Your task to perform on an android device: uninstall "Etsy: Buy & Sell Unique Items" Image 0: 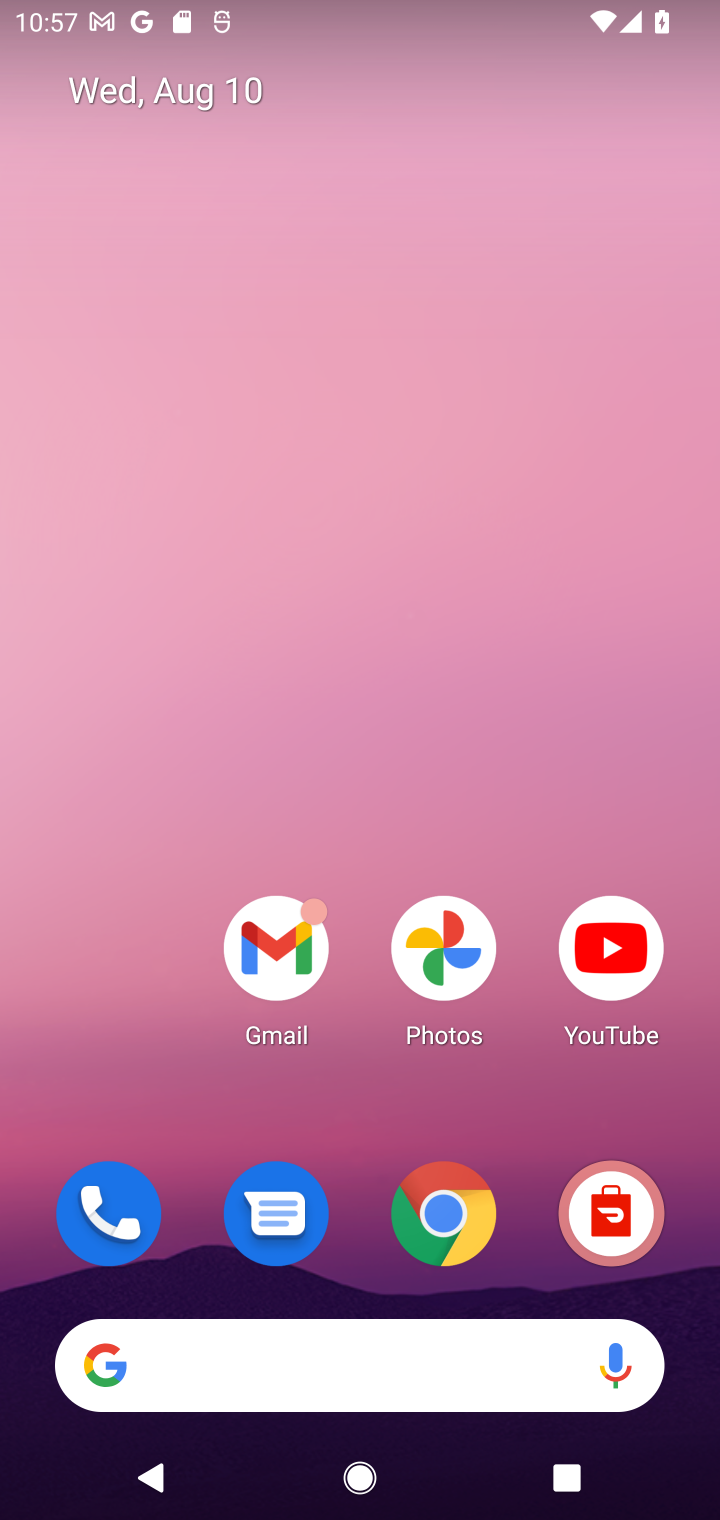
Step 0: drag from (215, 1389) to (418, 90)
Your task to perform on an android device: uninstall "Etsy: Buy & Sell Unique Items" Image 1: 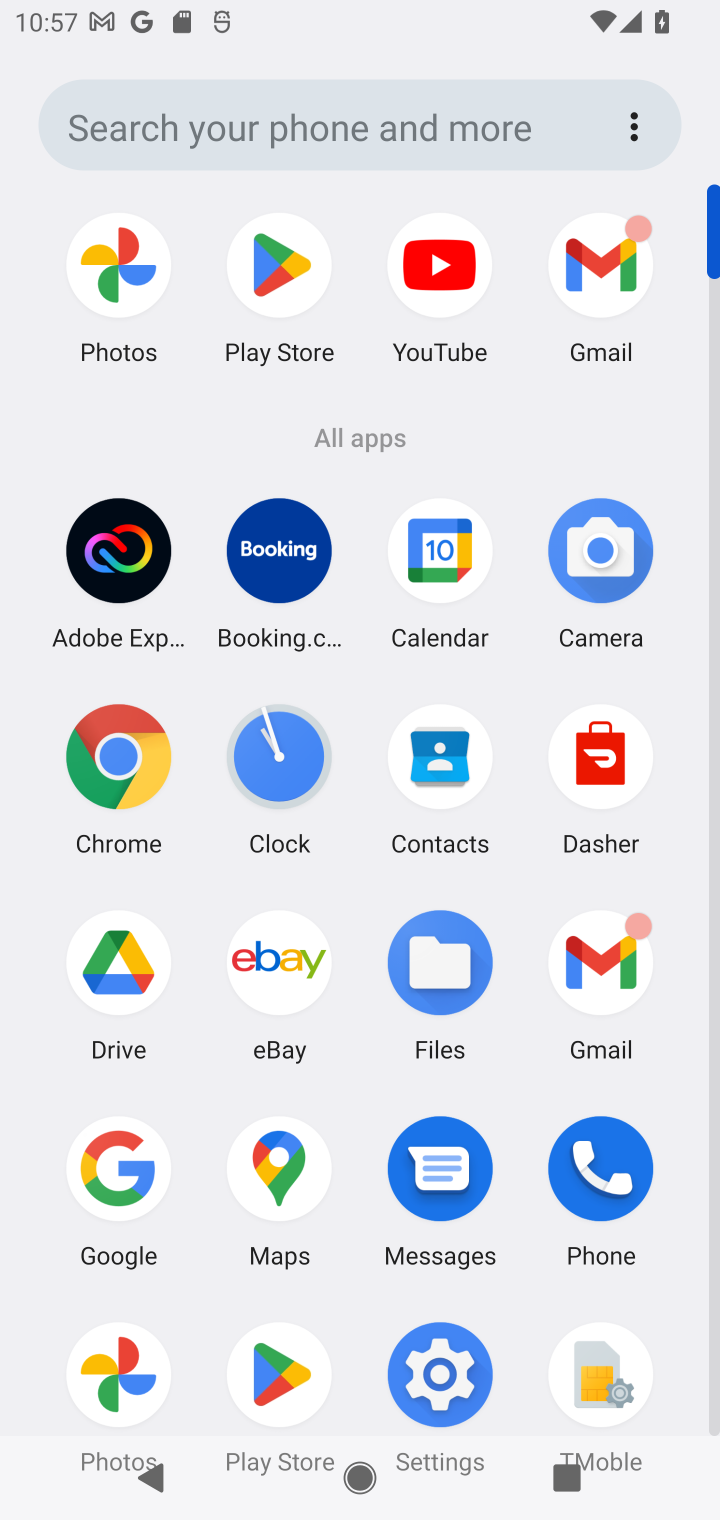
Step 1: click (275, 275)
Your task to perform on an android device: uninstall "Etsy: Buy & Sell Unique Items" Image 2: 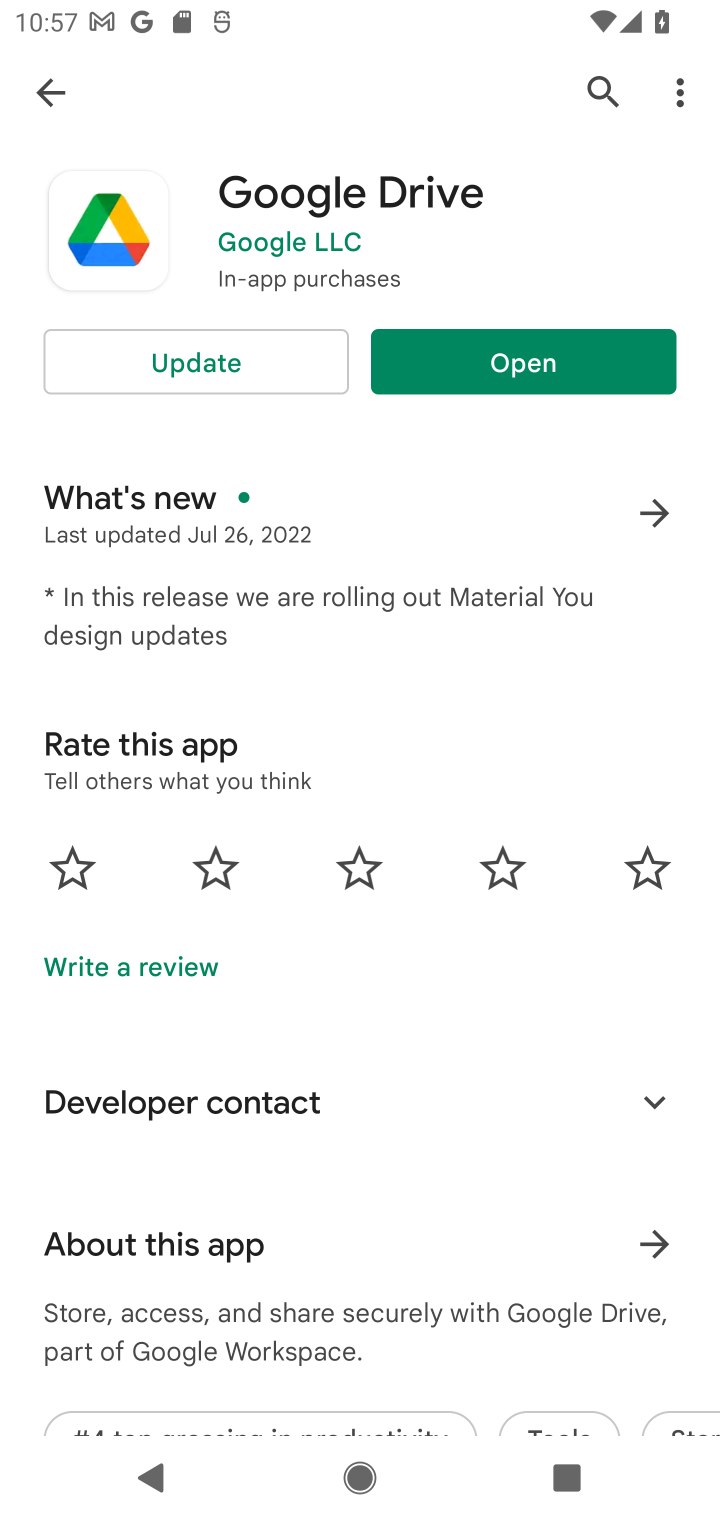
Step 2: press back button
Your task to perform on an android device: uninstall "Etsy: Buy & Sell Unique Items" Image 3: 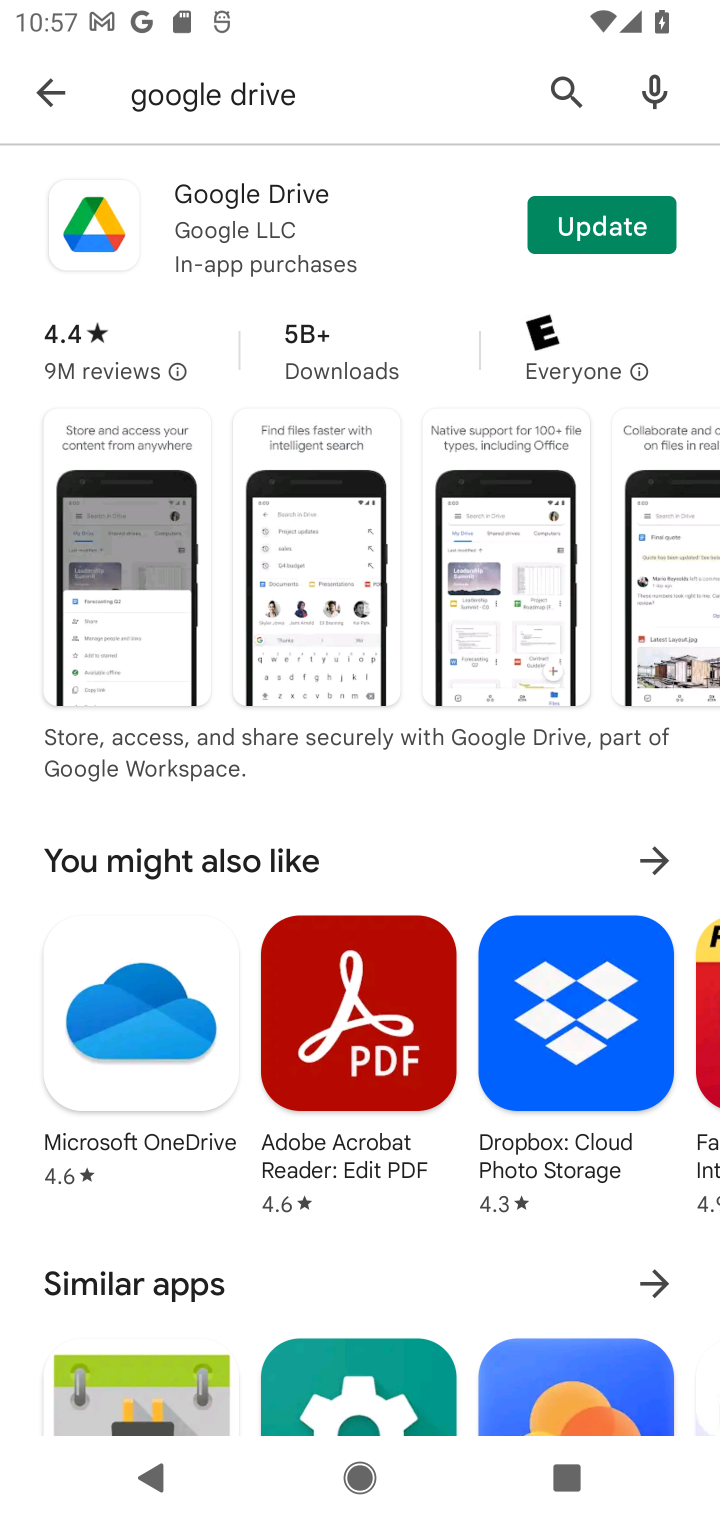
Step 3: press back button
Your task to perform on an android device: uninstall "Etsy: Buy & Sell Unique Items" Image 4: 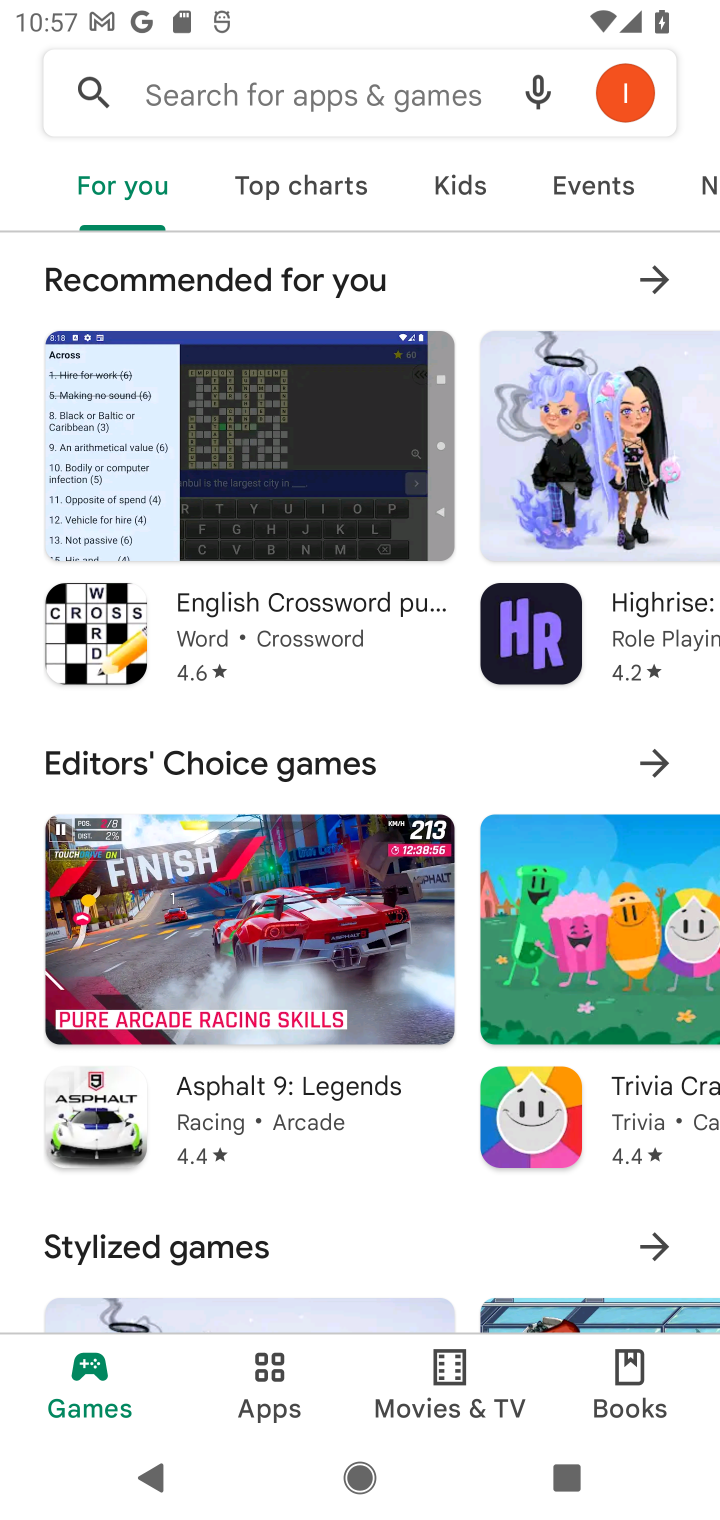
Step 4: click (372, 112)
Your task to perform on an android device: uninstall "Etsy: Buy & Sell Unique Items" Image 5: 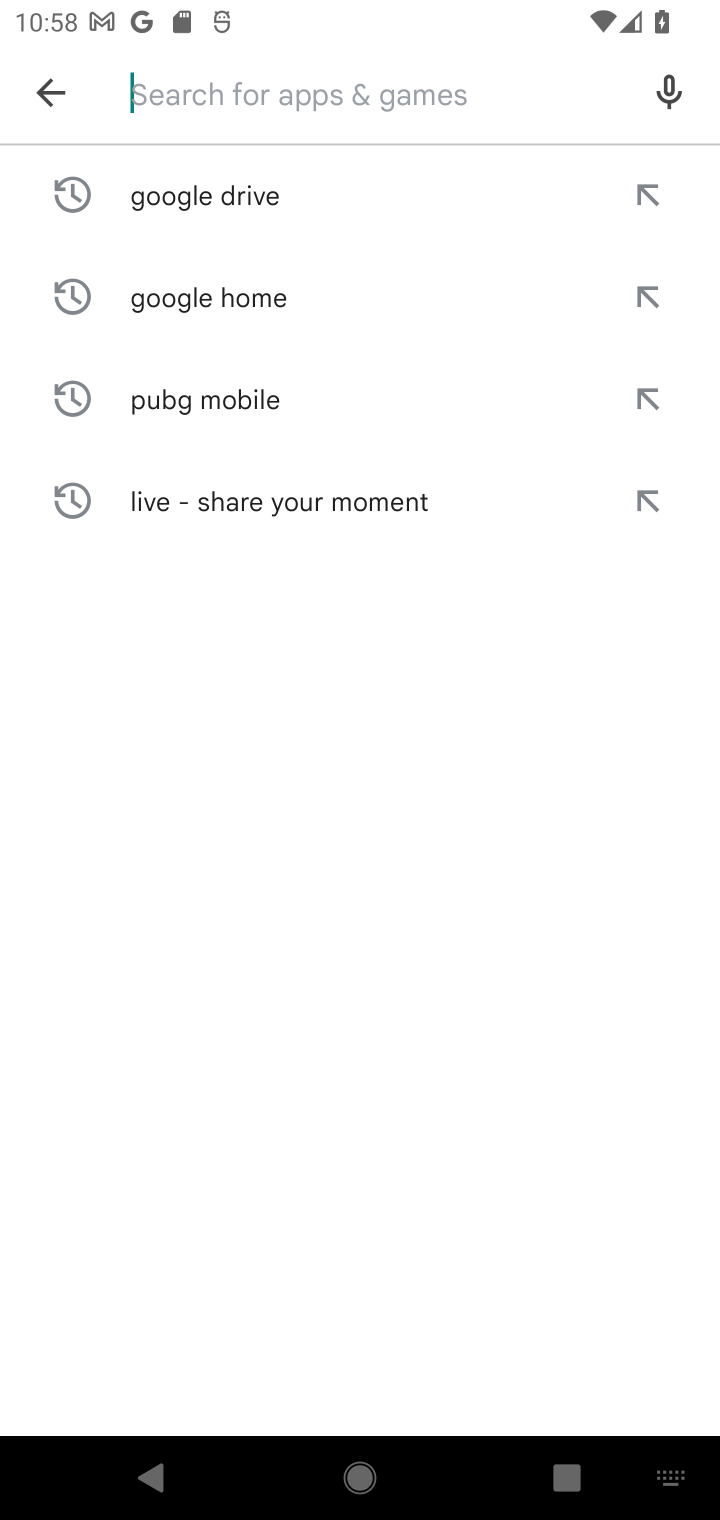
Step 5: type "Etsy: Buy & Sell Unique Items"
Your task to perform on an android device: uninstall "Etsy: Buy & Sell Unique Items" Image 6: 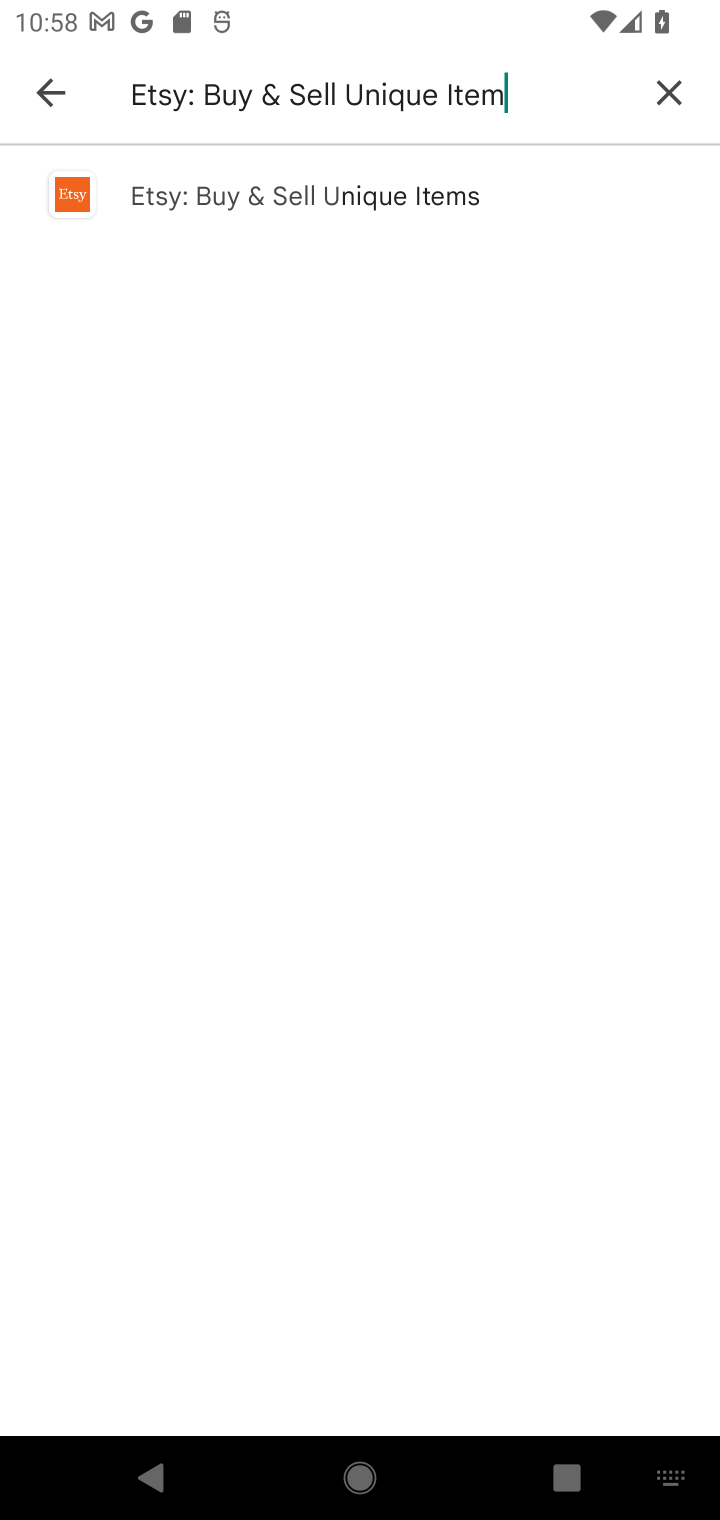
Step 6: type ""
Your task to perform on an android device: uninstall "Etsy: Buy & Sell Unique Items" Image 7: 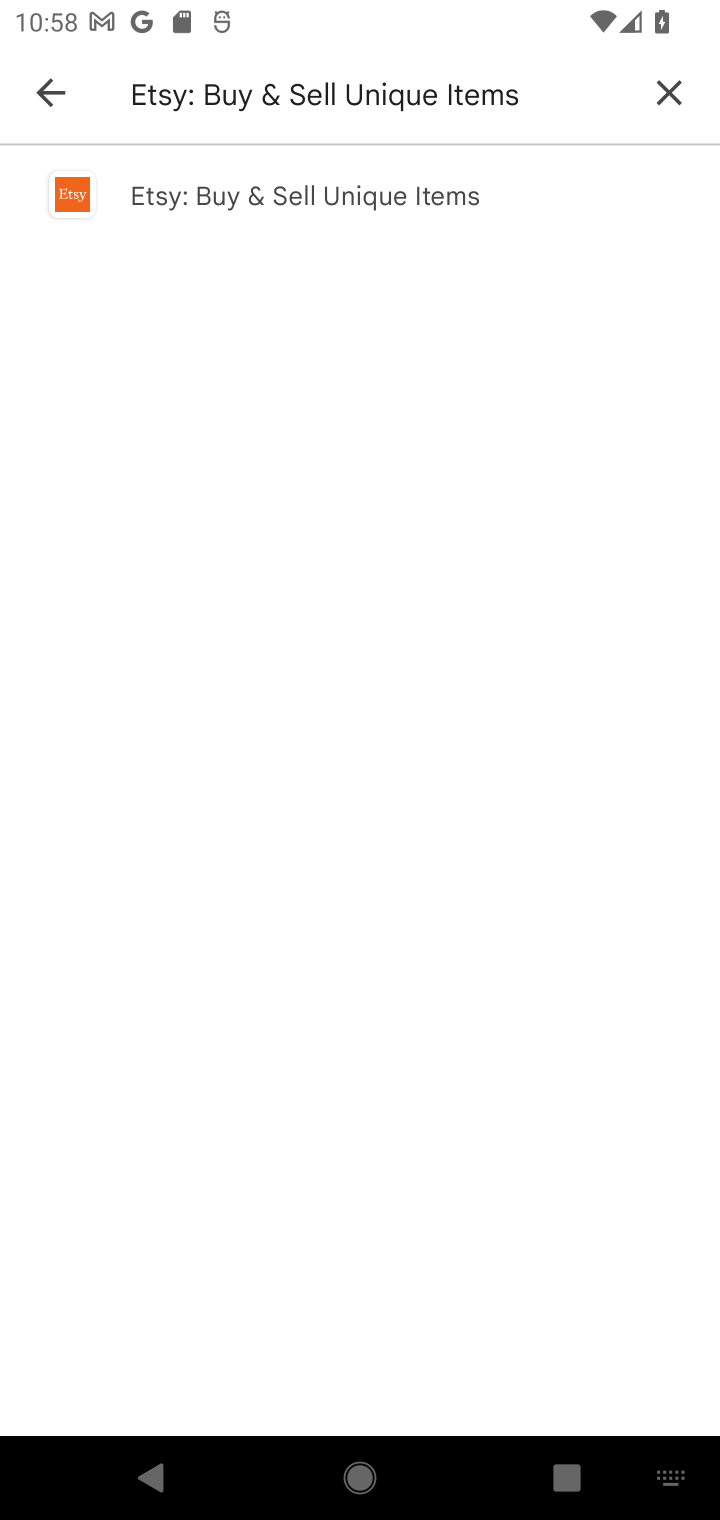
Step 7: click (325, 219)
Your task to perform on an android device: uninstall "Etsy: Buy & Sell Unique Items" Image 8: 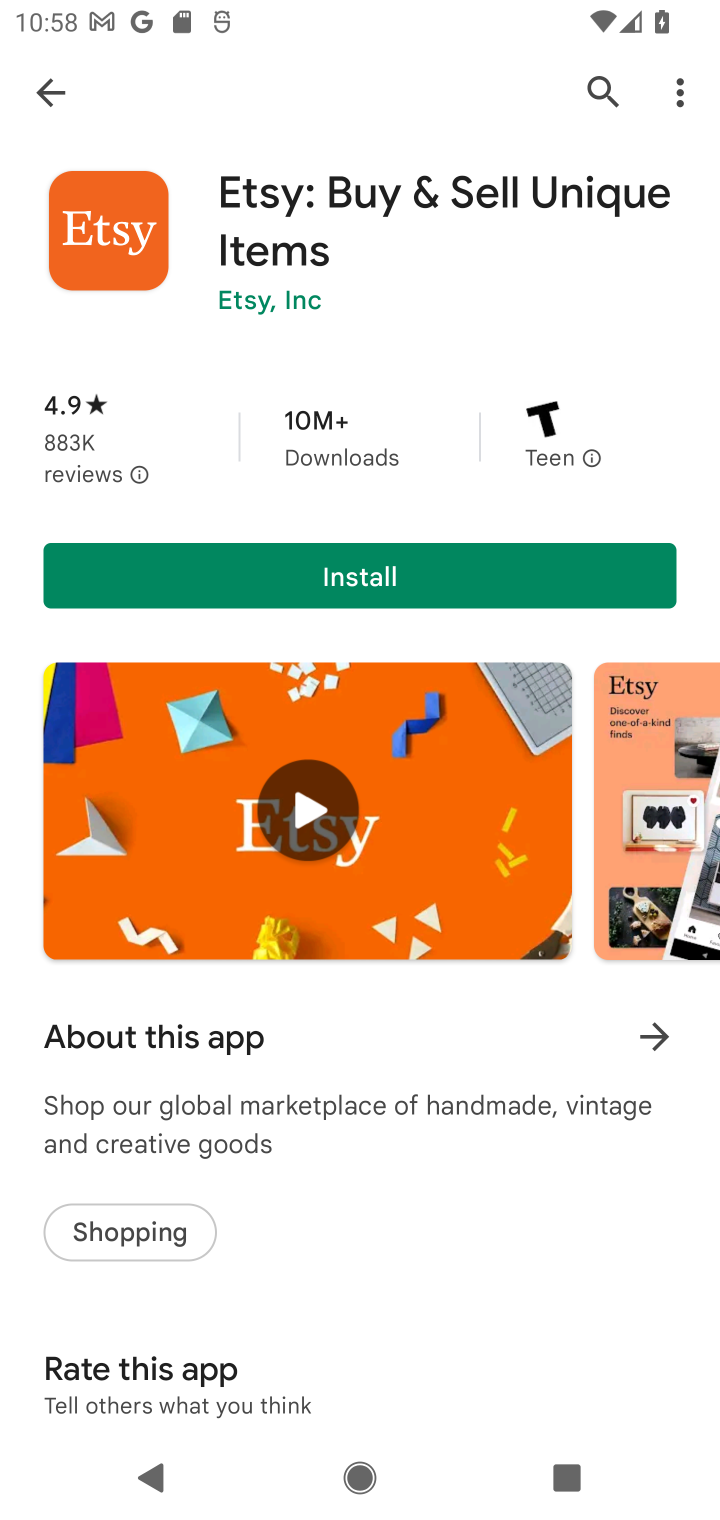
Step 8: task complete